Your task to perform on an android device: turn notification dots on Image 0: 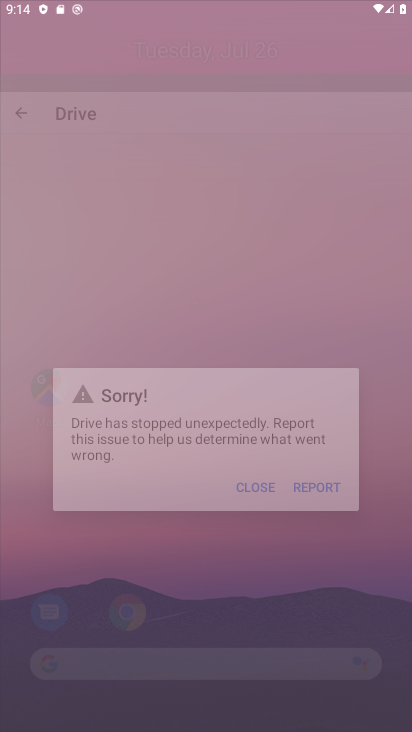
Step 0: click (240, 344)
Your task to perform on an android device: turn notification dots on Image 1: 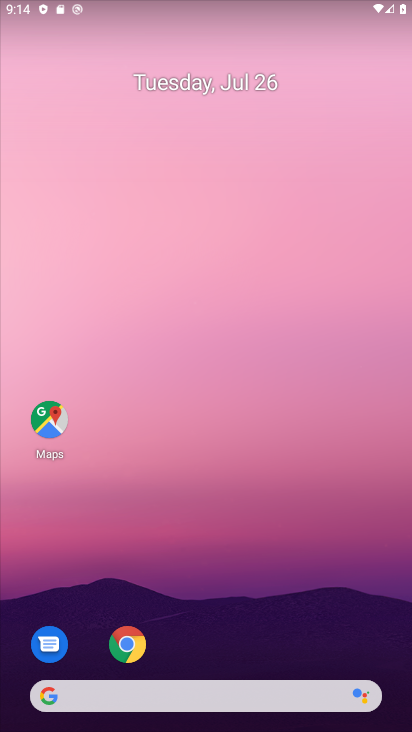
Step 1: drag from (218, 643) to (258, 52)
Your task to perform on an android device: turn notification dots on Image 2: 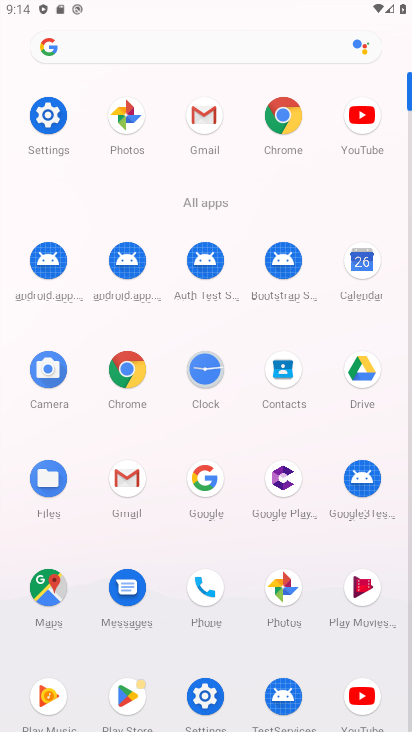
Step 2: click (212, 698)
Your task to perform on an android device: turn notification dots on Image 3: 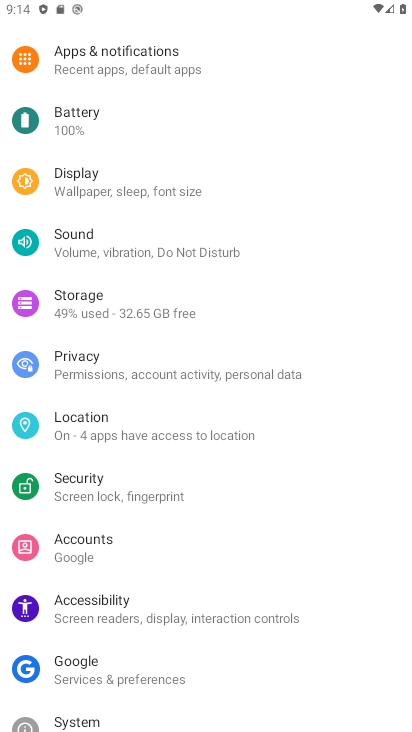
Step 3: drag from (139, 135) to (149, 573)
Your task to perform on an android device: turn notification dots on Image 4: 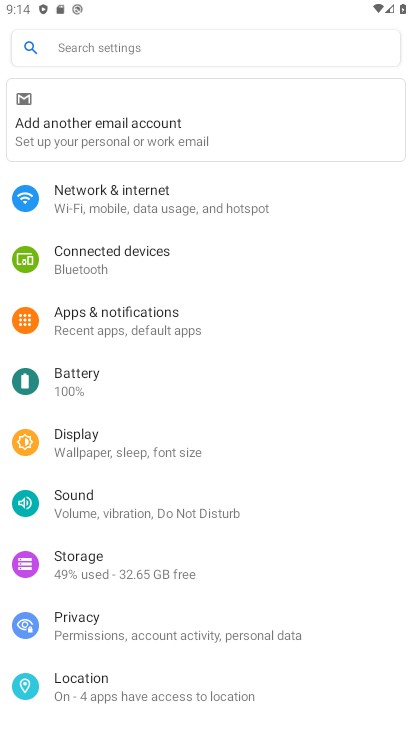
Step 4: click (160, 314)
Your task to perform on an android device: turn notification dots on Image 5: 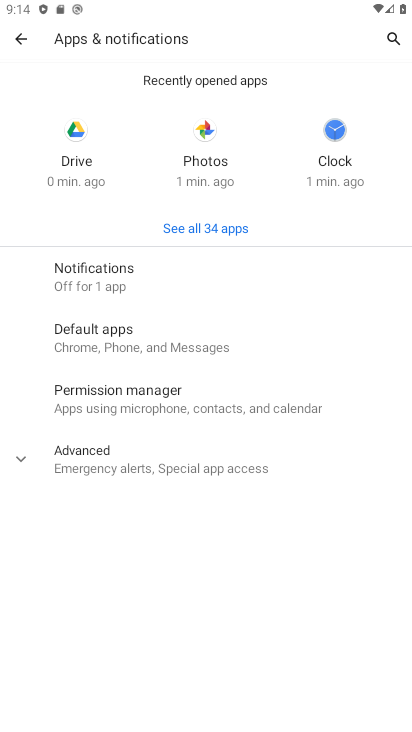
Step 5: click (109, 285)
Your task to perform on an android device: turn notification dots on Image 6: 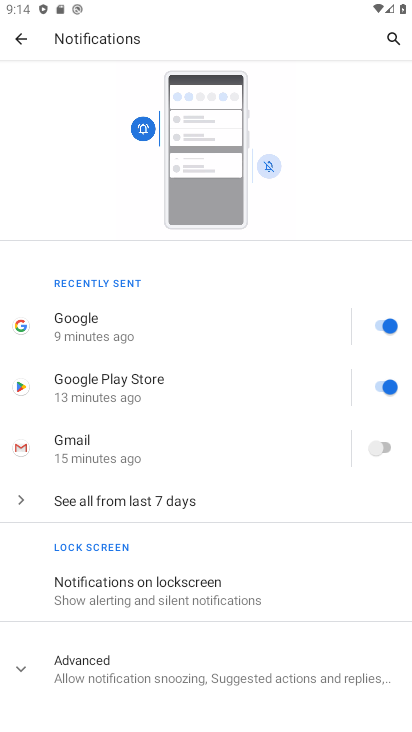
Step 6: click (111, 673)
Your task to perform on an android device: turn notification dots on Image 7: 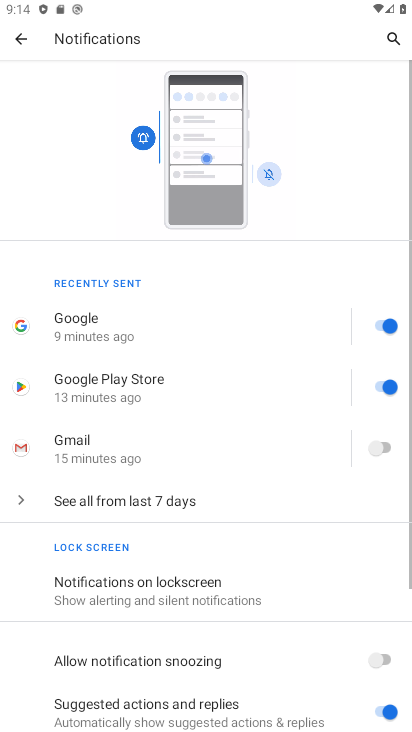
Step 7: task complete